Your task to perform on an android device: Add "logitech g pro" to the cart on bestbuy.com, then select checkout. Image 0: 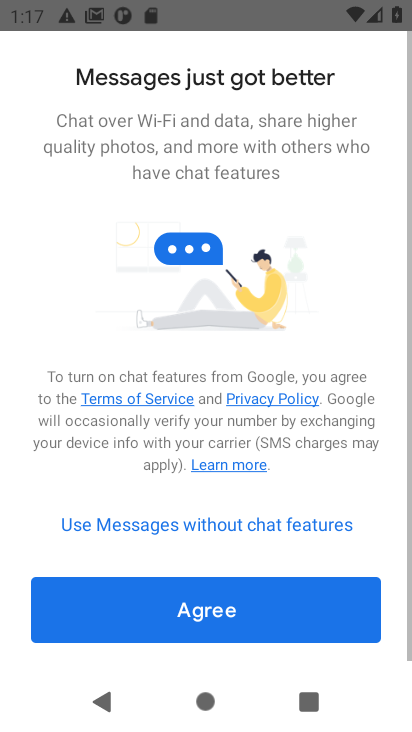
Step 0: press home button
Your task to perform on an android device: Add "logitech g pro" to the cart on bestbuy.com, then select checkout. Image 1: 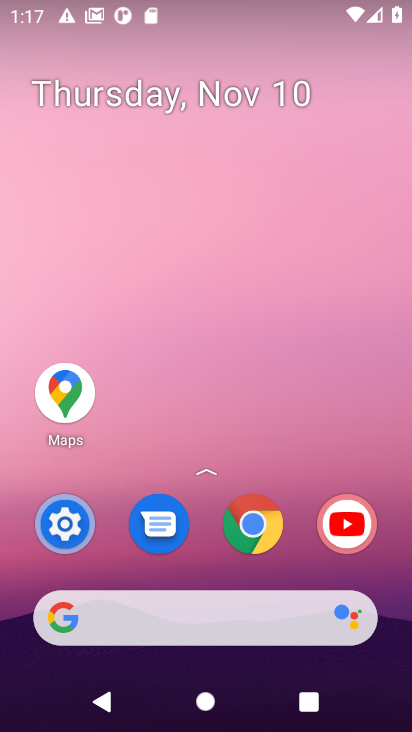
Step 1: click (262, 528)
Your task to perform on an android device: Add "logitech g pro" to the cart on bestbuy.com, then select checkout. Image 2: 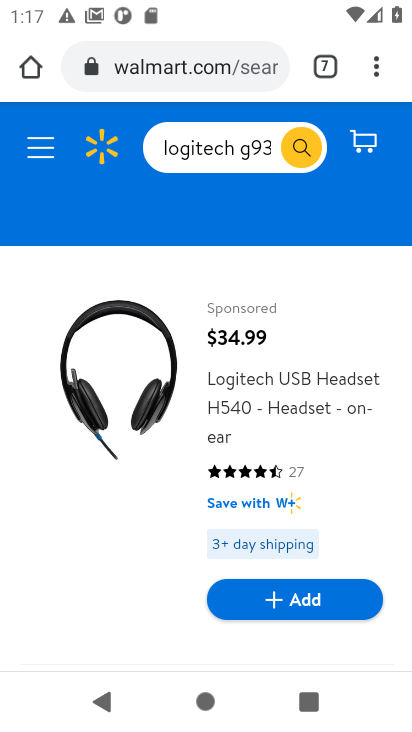
Step 2: click (324, 71)
Your task to perform on an android device: Add "logitech g pro" to the cart on bestbuy.com, then select checkout. Image 3: 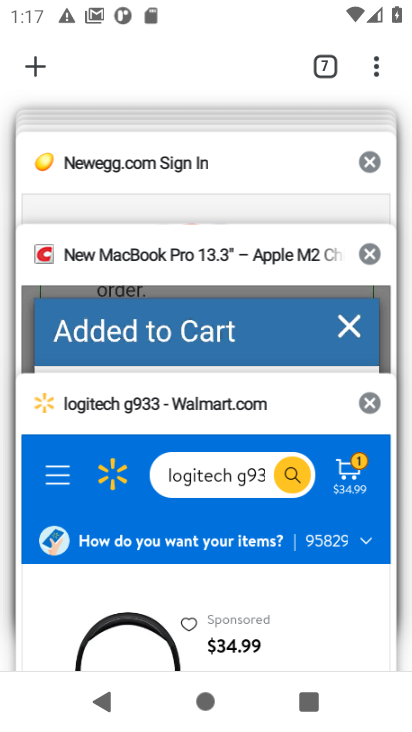
Step 3: drag from (259, 149) to (207, 415)
Your task to perform on an android device: Add "logitech g pro" to the cart on bestbuy.com, then select checkout. Image 4: 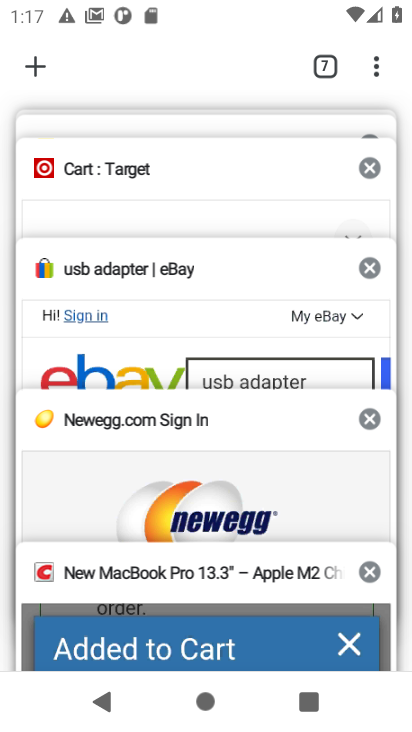
Step 4: drag from (274, 124) to (252, 269)
Your task to perform on an android device: Add "logitech g pro" to the cart on bestbuy.com, then select checkout. Image 5: 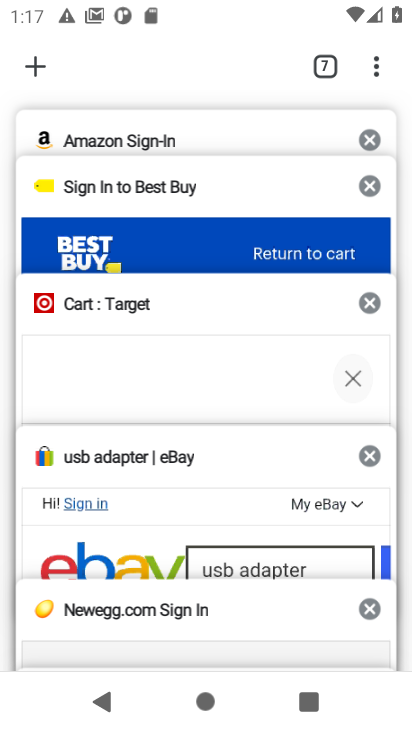
Step 5: click (252, 269)
Your task to perform on an android device: Add "logitech g pro" to the cart on bestbuy.com, then select checkout. Image 6: 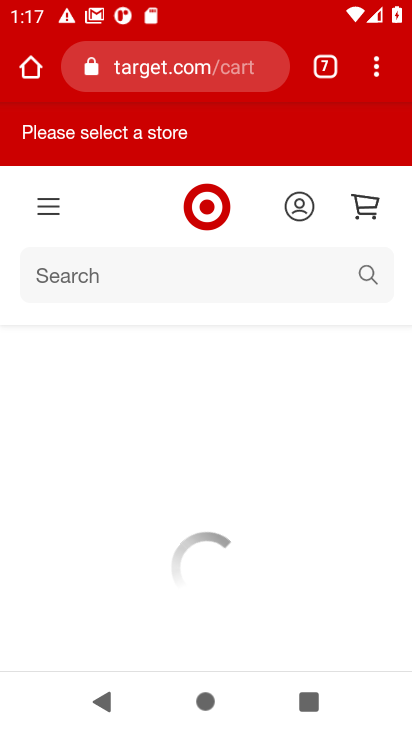
Step 6: click (325, 64)
Your task to perform on an android device: Add "logitech g pro" to the cart on bestbuy.com, then select checkout. Image 7: 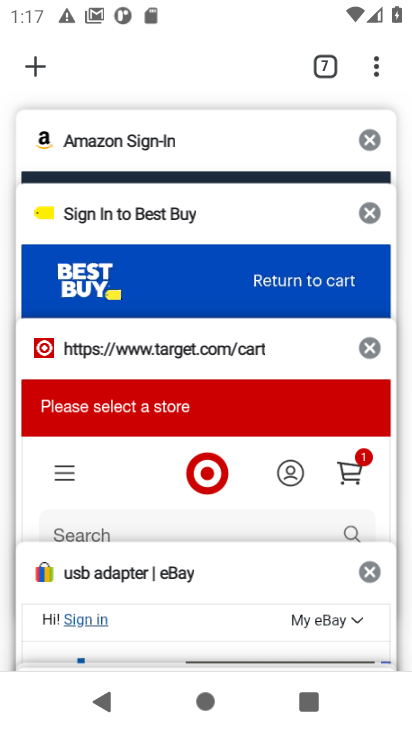
Step 7: click (207, 243)
Your task to perform on an android device: Add "logitech g pro" to the cart on bestbuy.com, then select checkout. Image 8: 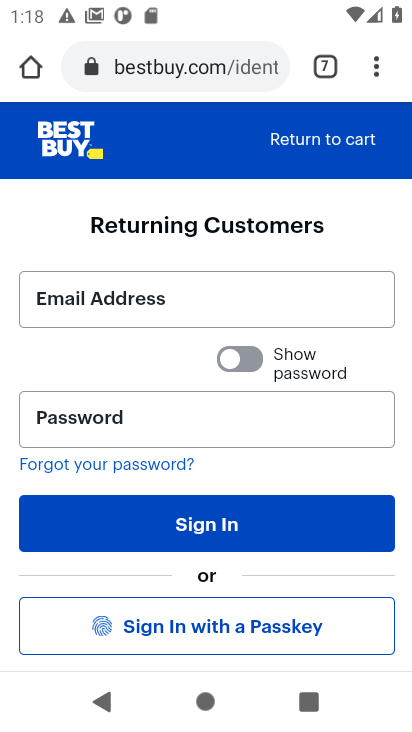
Step 8: click (300, 141)
Your task to perform on an android device: Add "logitech g pro" to the cart on bestbuy.com, then select checkout. Image 9: 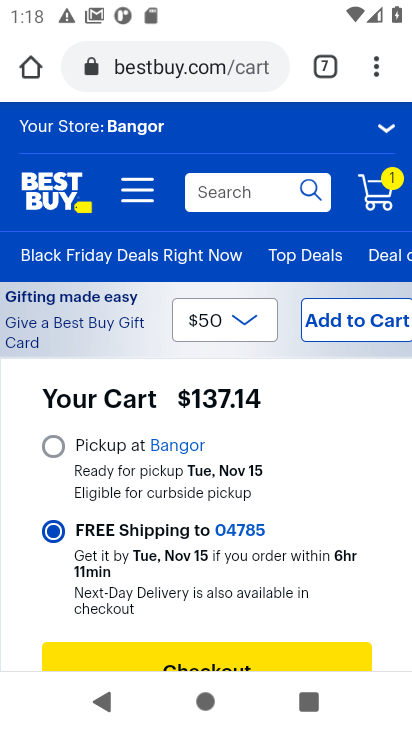
Step 9: click (216, 194)
Your task to perform on an android device: Add "logitech g pro" to the cart on bestbuy.com, then select checkout. Image 10: 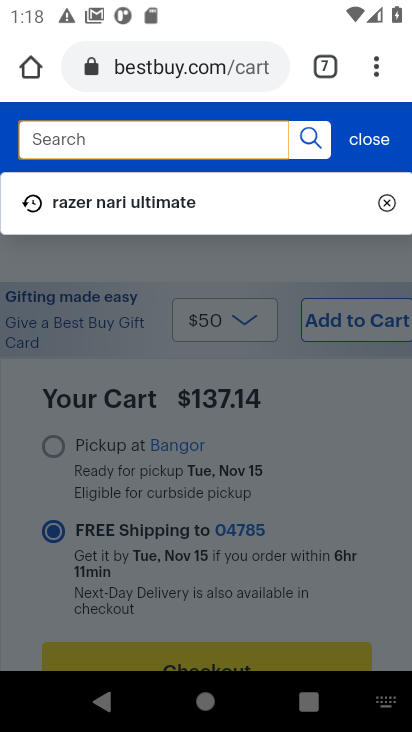
Step 10: type "logitech g pro"
Your task to perform on an android device: Add "logitech g pro" to the cart on bestbuy.com, then select checkout. Image 11: 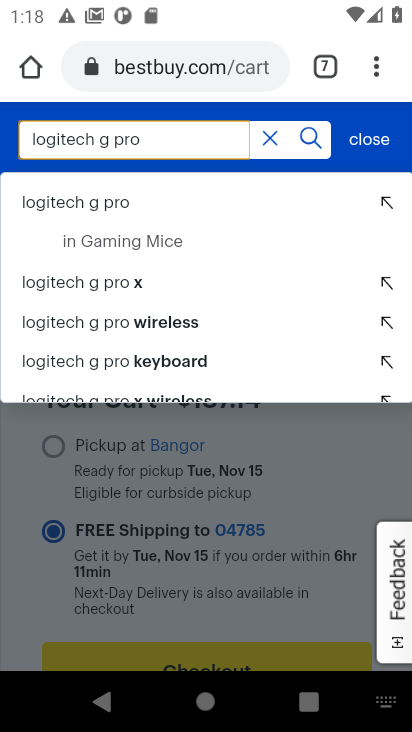
Step 11: click (51, 211)
Your task to perform on an android device: Add "logitech g pro" to the cart on bestbuy.com, then select checkout. Image 12: 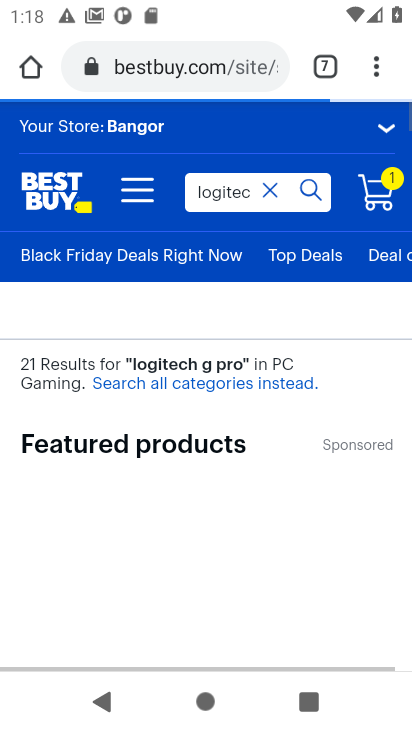
Step 12: drag from (226, 508) to (238, 4)
Your task to perform on an android device: Add "logitech g pro" to the cart on bestbuy.com, then select checkout. Image 13: 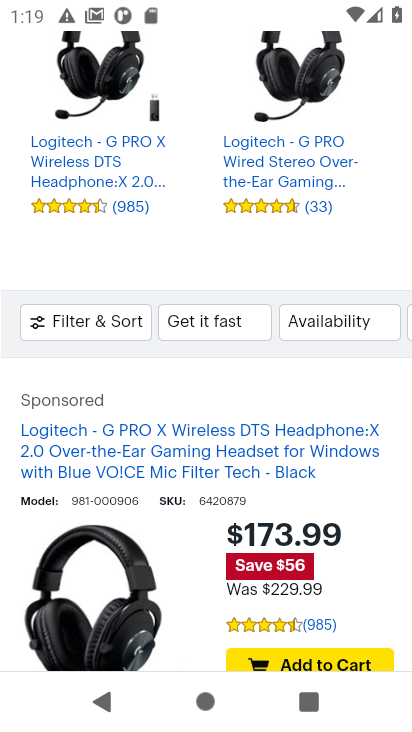
Step 13: drag from (373, 595) to (369, 351)
Your task to perform on an android device: Add "logitech g pro" to the cart on bestbuy.com, then select checkout. Image 14: 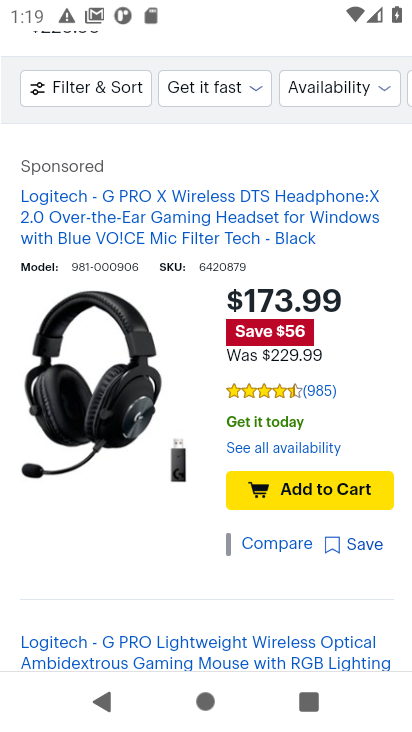
Step 14: click (334, 485)
Your task to perform on an android device: Add "logitech g pro" to the cart on bestbuy.com, then select checkout. Image 15: 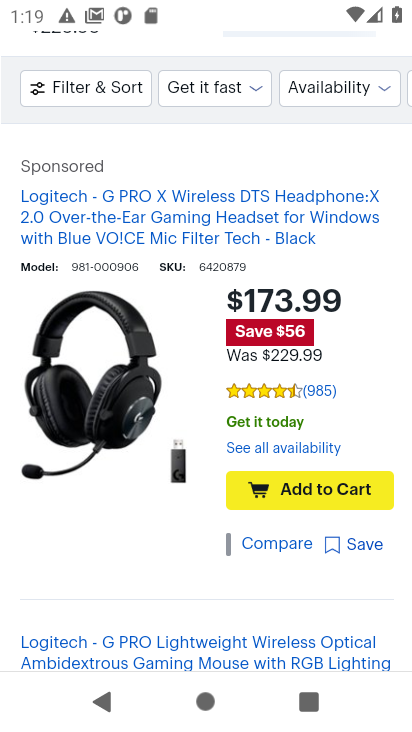
Step 15: drag from (374, 146) to (289, 703)
Your task to perform on an android device: Add "logitech g pro" to the cart on bestbuy.com, then select checkout. Image 16: 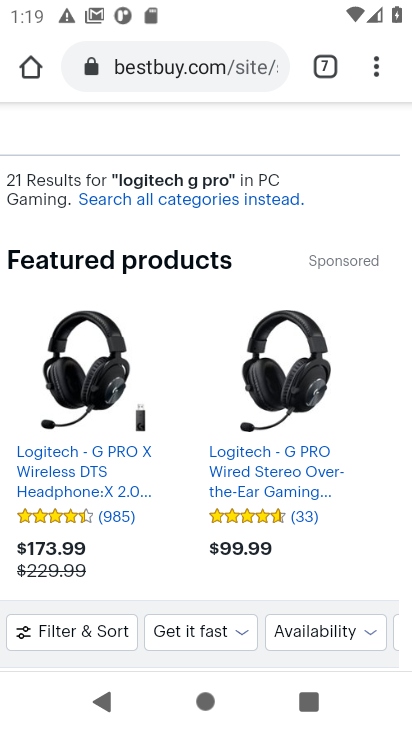
Step 16: drag from (345, 198) to (343, 410)
Your task to perform on an android device: Add "logitech g pro" to the cart on bestbuy.com, then select checkout. Image 17: 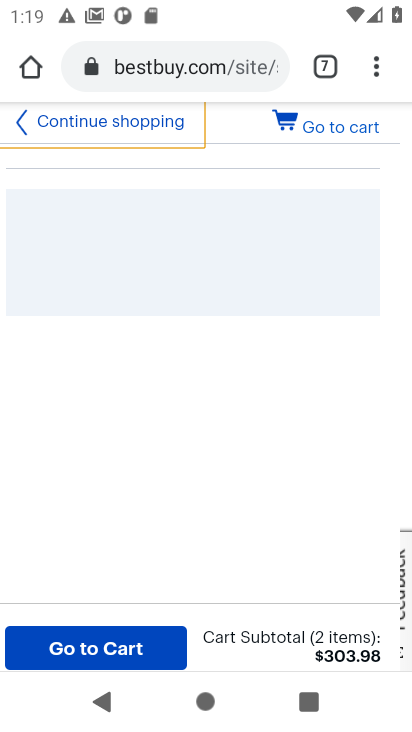
Step 17: click (346, 127)
Your task to perform on an android device: Add "logitech g pro" to the cart on bestbuy.com, then select checkout. Image 18: 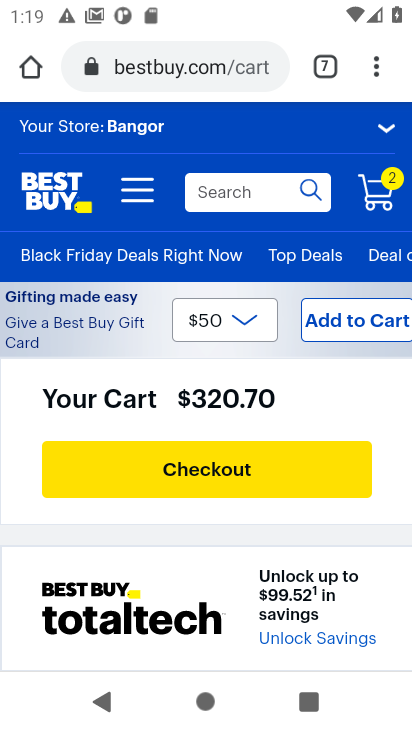
Step 18: click (265, 458)
Your task to perform on an android device: Add "logitech g pro" to the cart on bestbuy.com, then select checkout. Image 19: 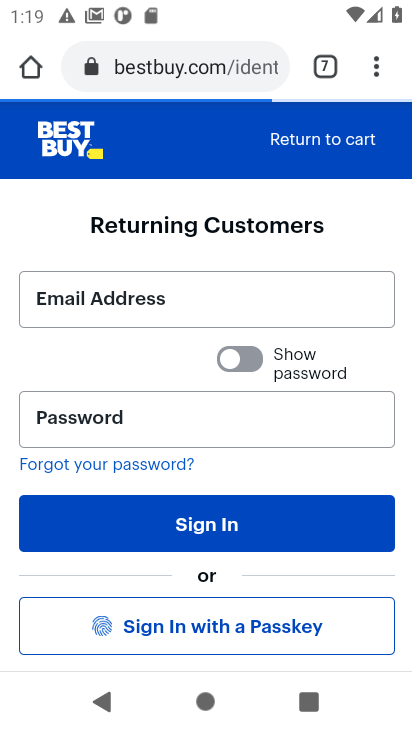
Step 19: task complete